Your task to perform on an android device: turn on priority inbox in the gmail app Image 0: 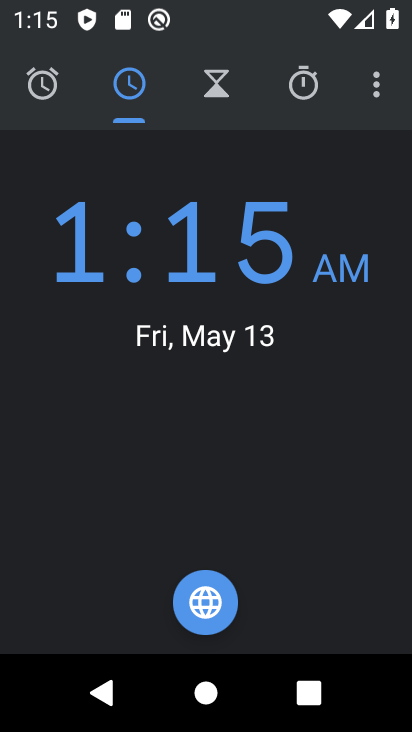
Step 0: press home button
Your task to perform on an android device: turn on priority inbox in the gmail app Image 1: 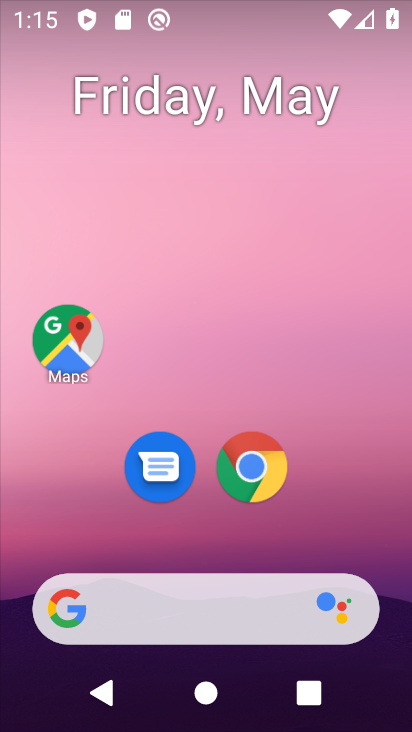
Step 1: drag from (345, 512) to (322, 111)
Your task to perform on an android device: turn on priority inbox in the gmail app Image 2: 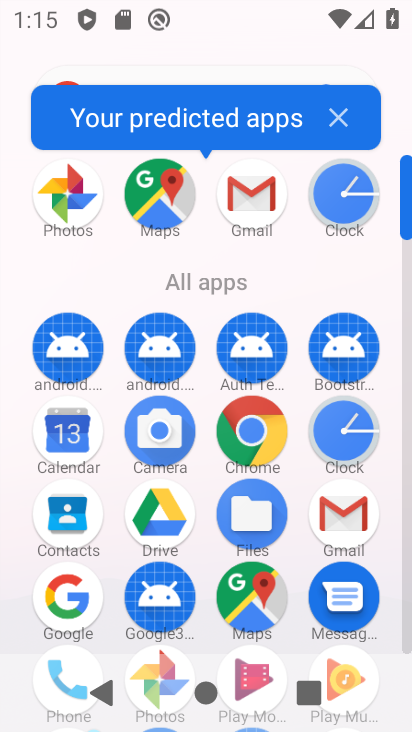
Step 2: click (254, 201)
Your task to perform on an android device: turn on priority inbox in the gmail app Image 3: 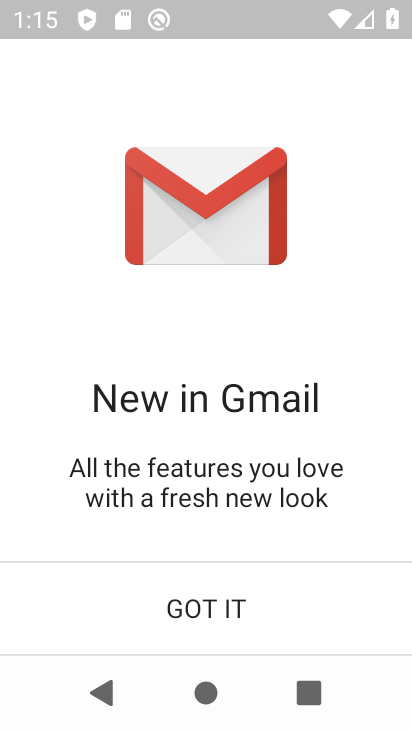
Step 3: click (210, 616)
Your task to perform on an android device: turn on priority inbox in the gmail app Image 4: 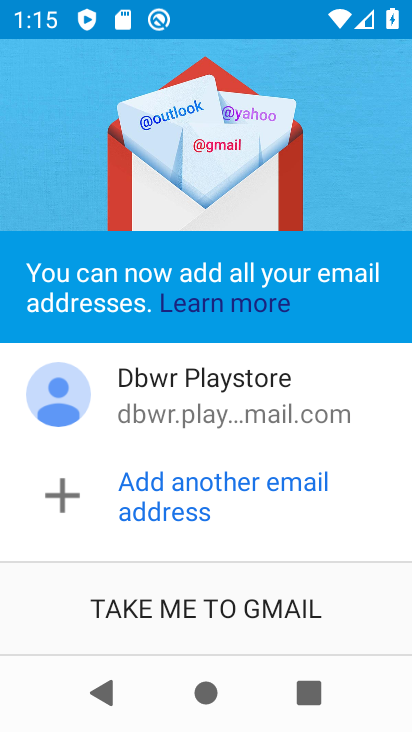
Step 4: click (194, 601)
Your task to perform on an android device: turn on priority inbox in the gmail app Image 5: 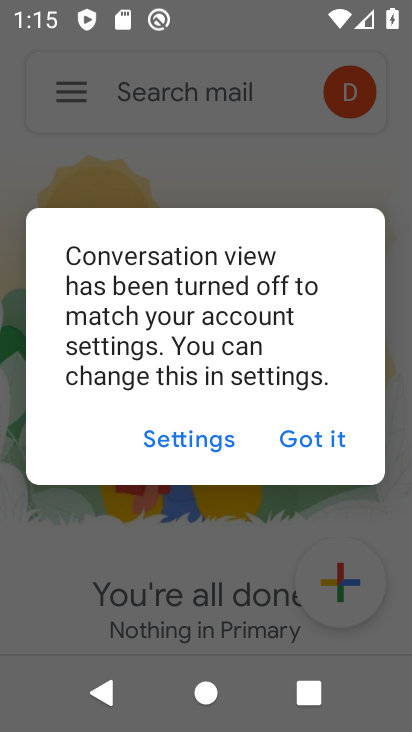
Step 5: click (329, 427)
Your task to perform on an android device: turn on priority inbox in the gmail app Image 6: 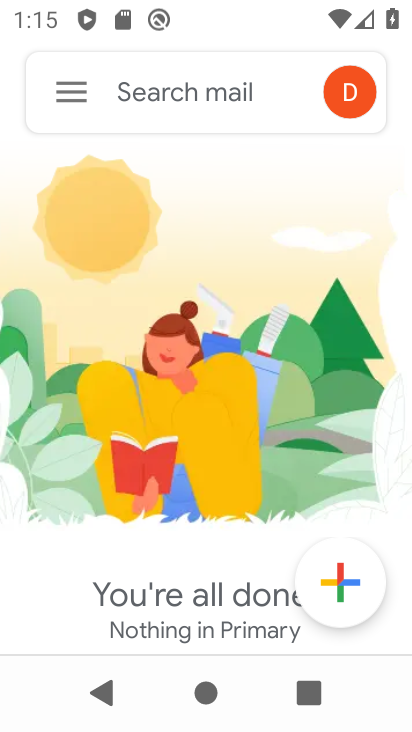
Step 6: click (76, 88)
Your task to perform on an android device: turn on priority inbox in the gmail app Image 7: 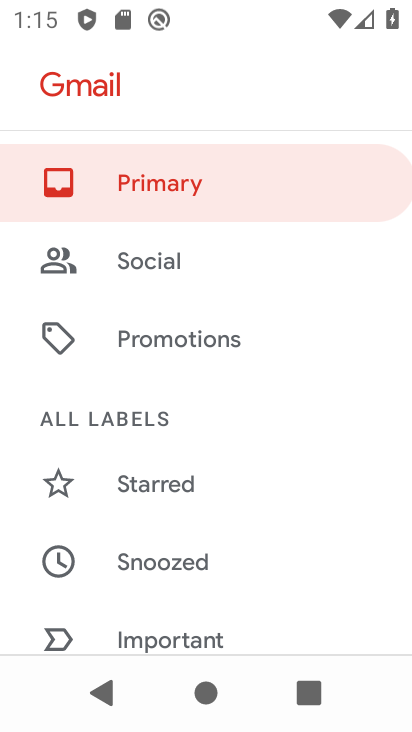
Step 7: drag from (217, 622) to (224, 211)
Your task to perform on an android device: turn on priority inbox in the gmail app Image 8: 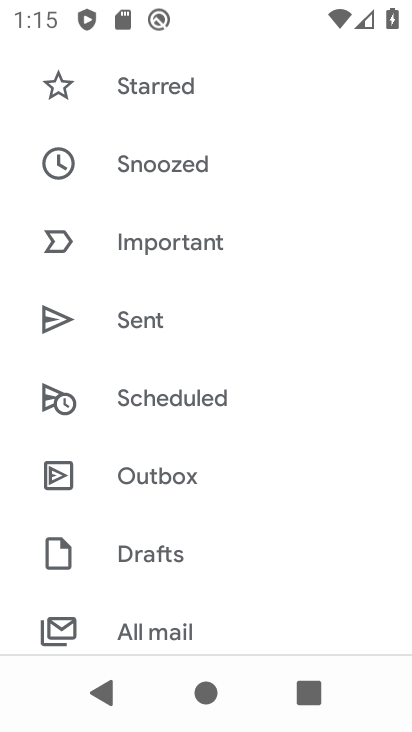
Step 8: drag from (158, 565) to (217, 182)
Your task to perform on an android device: turn on priority inbox in the gmail app Image 9: 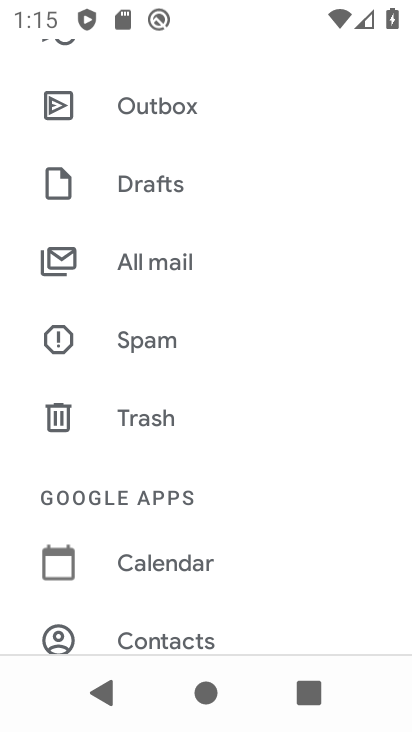
Step 9: drag from (201, 599) to (272, 175)
Your task to perform on an android device: turn on priority inbox in the gmail app Image 10: 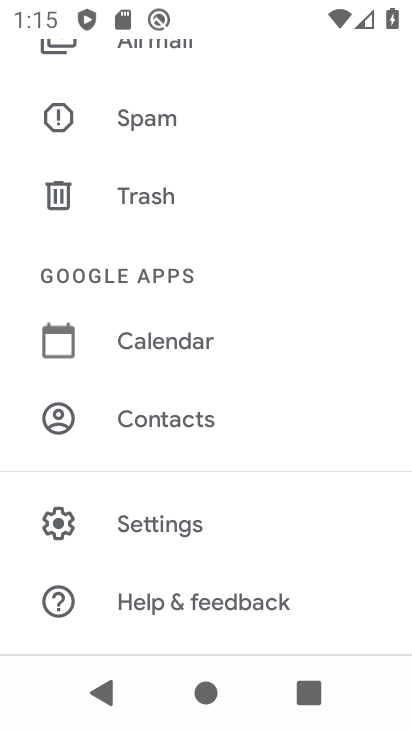
Step 10: click (188, 523)
Your task to perform on an android device: turn on priority inbox in the gmail app Image 11: 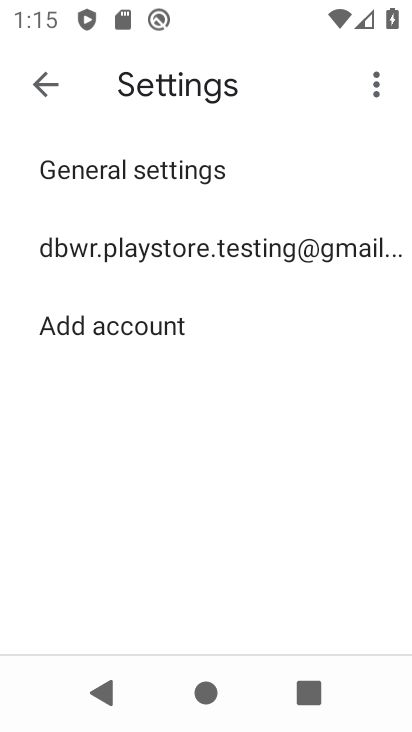
Step 11: click (71, 244)
Your task to perform on an android device: turn on priority inbox in the gmail app Image 12: 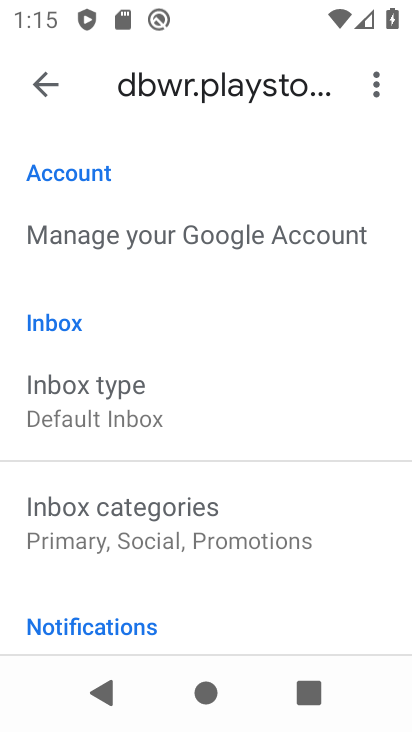
Step 12: drag from (167, 585) to (221, 223)
Your task to perform on an android device: turn on priority inbox in the gmail app Image 13: 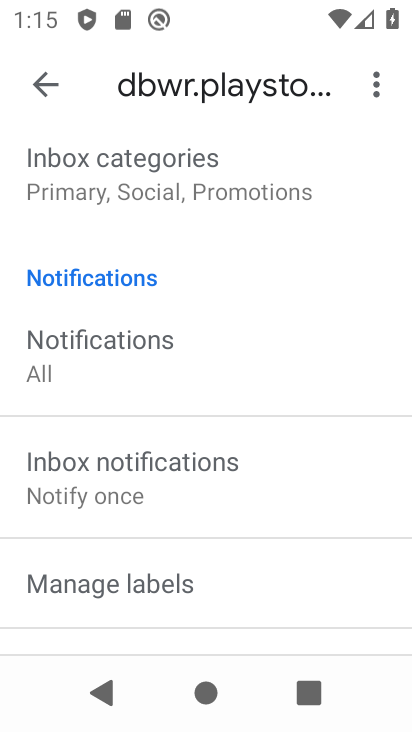
Step 13: drag from (221, 223) to (258, 648)
Your task to perform on an android device: turn on priority inbox in the gmail app Image 14: 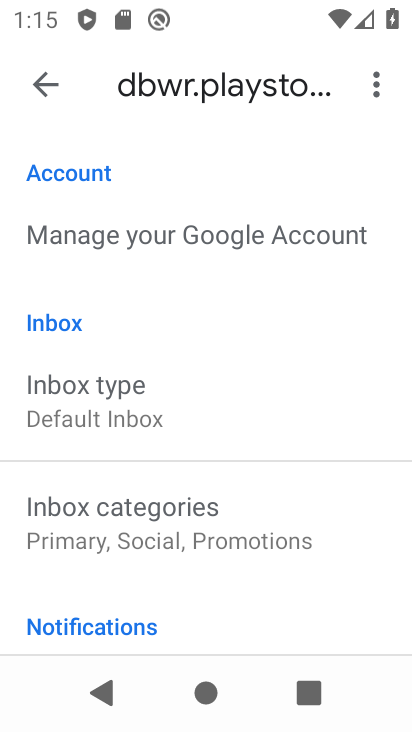
Step 14: click (108, 393)
Your task to perform on an android device: turn on priority inbox in the gmail app Image 15: 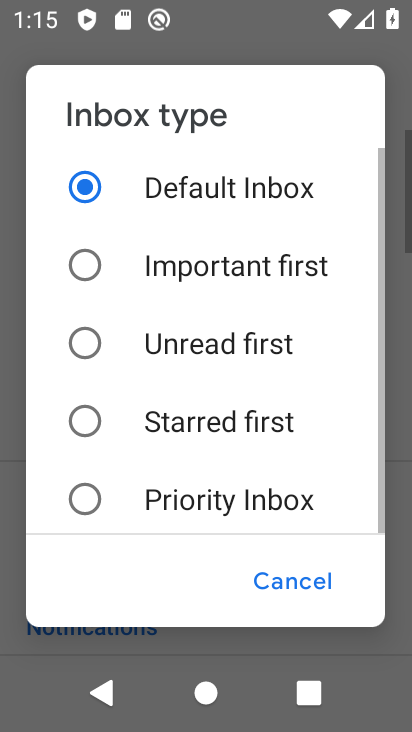
Step 15: click (148, 492)
Your task to perform on an android device: turn on priority inbox in the gmail app Image 16: 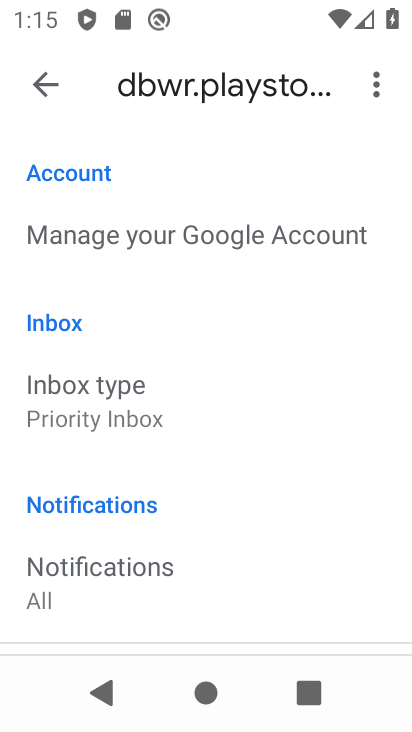
Step 16: task complete